Your task to perform on an android device: toggle data saver in the chrome app Image 0: 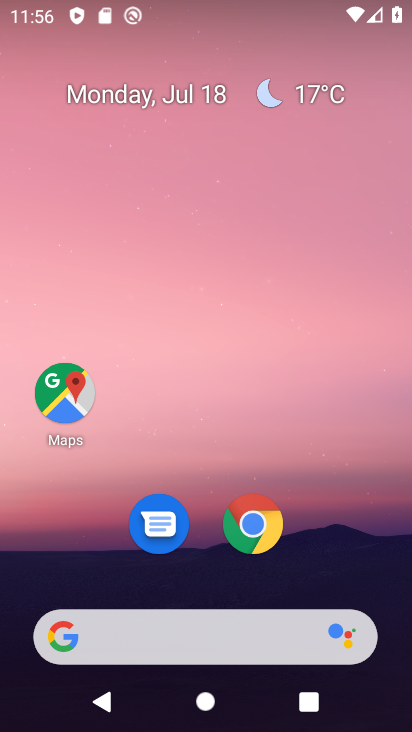
Step 0: click (265, 537)
Your task to perform on an android device: toggle data saver in the chrome app Image 1: 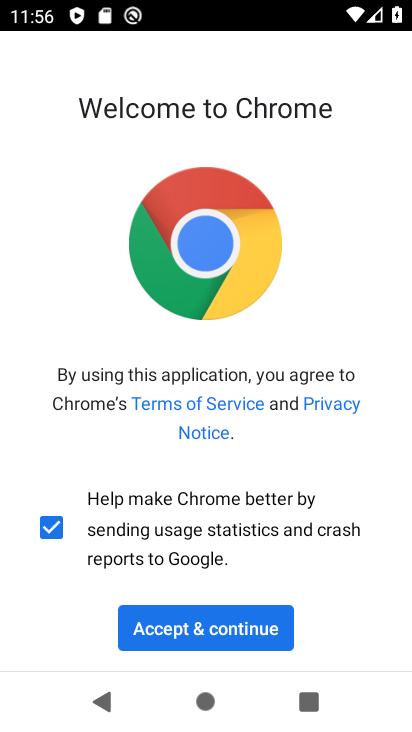
Step 1: click (255, 614)
Your task to perform on an android device: toggle data saver in the chrome app Image 2: 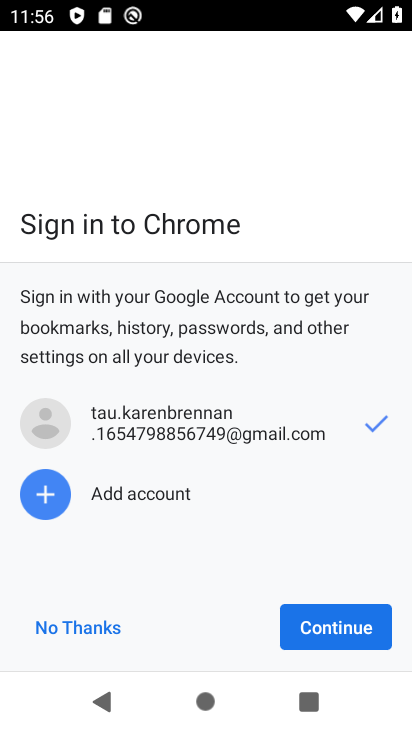
Step 2: click (342, 638)
Your task to perform on an android device: toggle data saver in the chrome app Image 3: 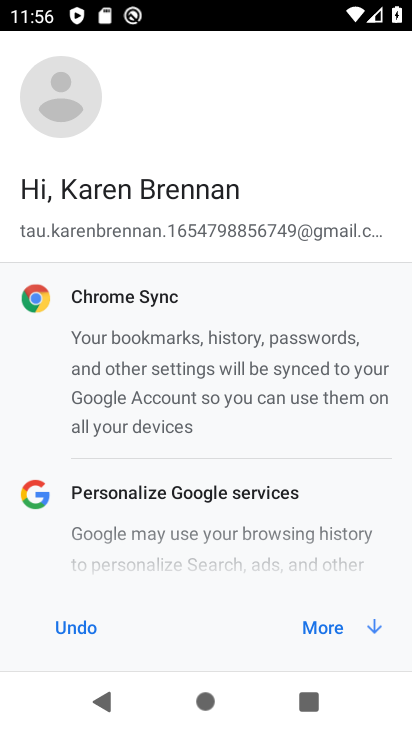
Step 3: click (343, 632)
Your task to perform on an android device: toggle data saver in the chrome app Image 4: 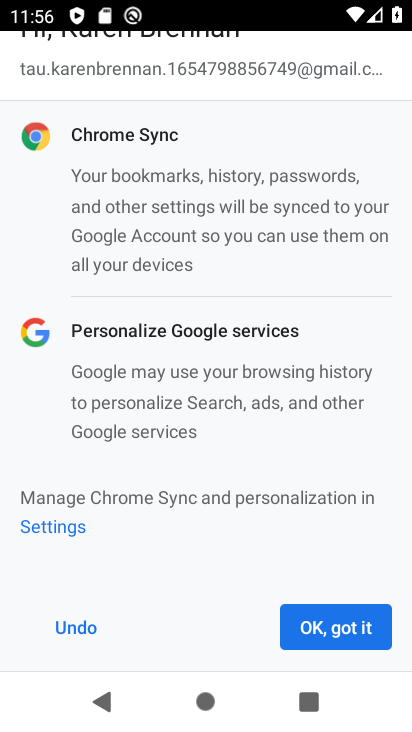
Step 4: click (343, 632)
Your task to perform on an android device: toggle data saver in the chrome app Image 5: 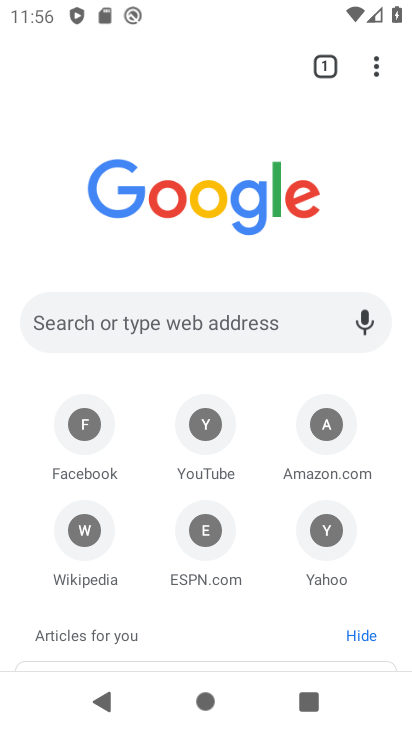
Step 5: click (371, 72)
Your task to perform on an android device: toggle data saver in the chrome app Image 6: 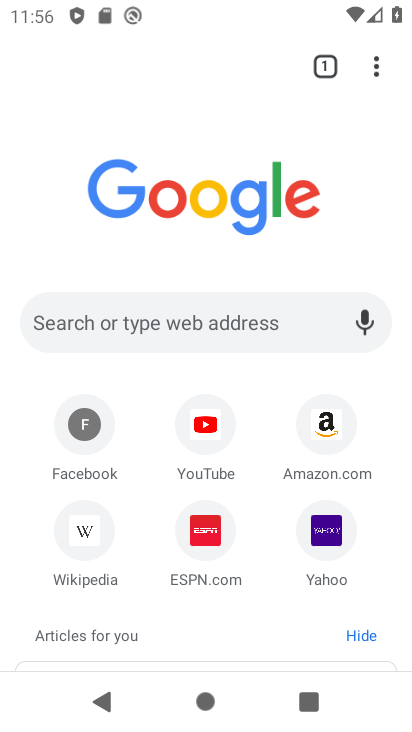
Step 6: drag from (371, 65) to (121, 564)
Your task to perform on an android device: toggle data saver in the chrome app Image 7: 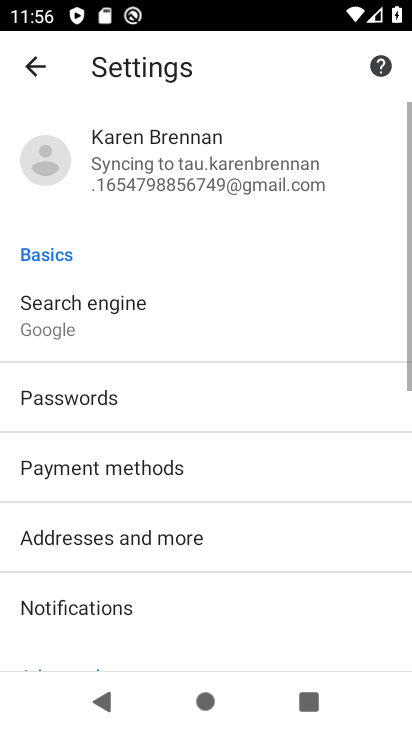
Step 7: drag from (121, 562) to (110, 149)
Your task to perform on an android device: toggle data saver in the chrome app Image 8: 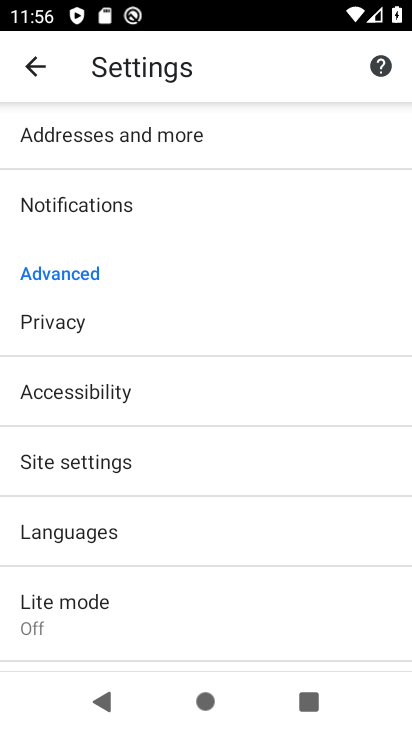
Step 8: click (122, 606)
Your task to perform on an android device: toggle data saver in the chrome app Image 9: 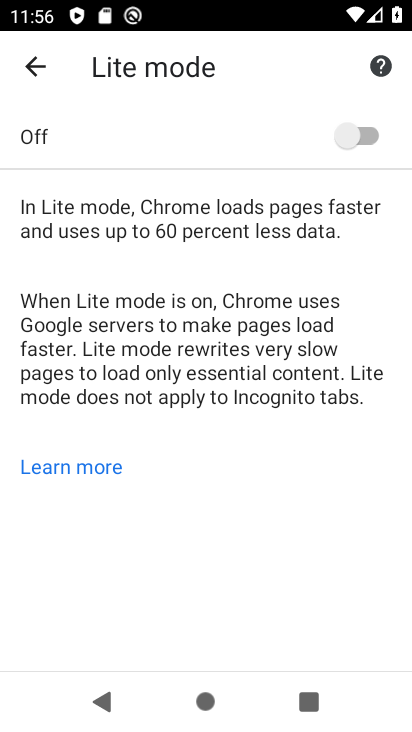
Step 9: click (355, 128)
Your task to perform on an android device: toggle data saver in the chrome app Image 10: 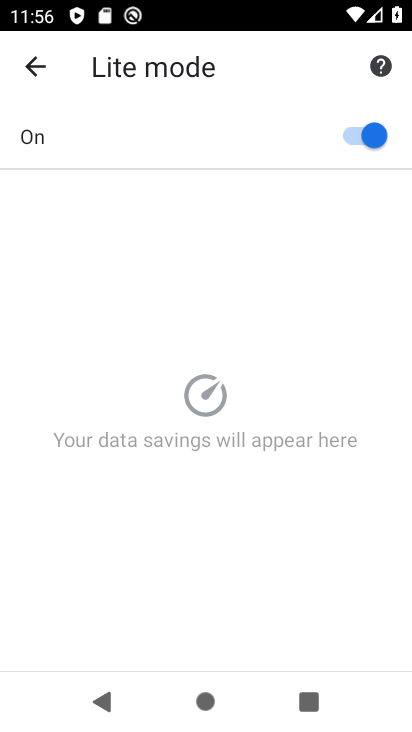
Step 10: task complete